Your task to perform on an android device: Open display settings Image 0: 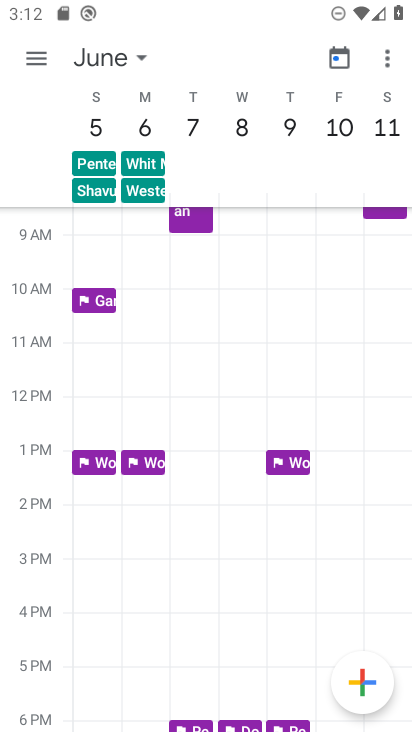
Step 0: press home button
Your task to perform on an android device: Open display settings Image 1: 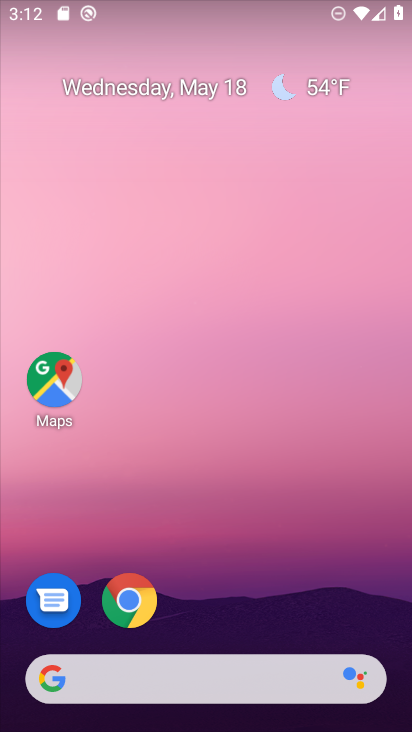
Step 1: drag from (225, 625) to (298, 151)
Your task to perform on an android device: Open display settings Image 2: 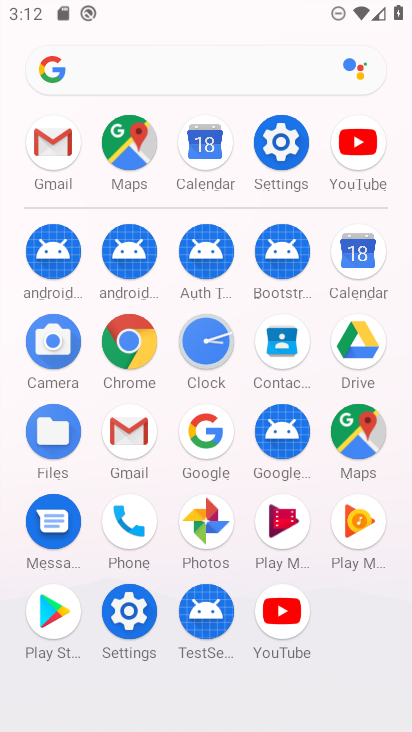
Step 2: click (125, 631)
Your task to perform on an android device: Open display settings Image 3: 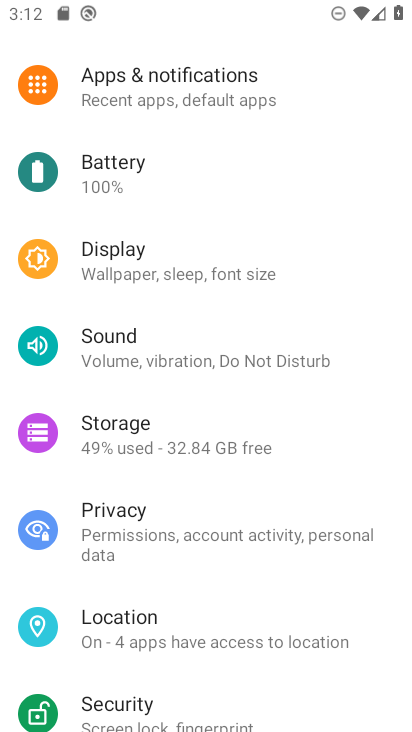
Step 3: click (151, 268)
Your task to perform on an android device: Open display settings Image 4: 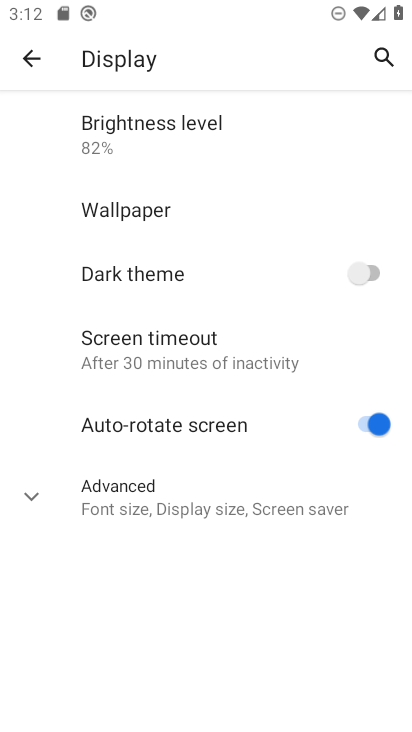
Step 4: task complete